Your task to perform on an android device: find which apps use the phone's location Image 0: 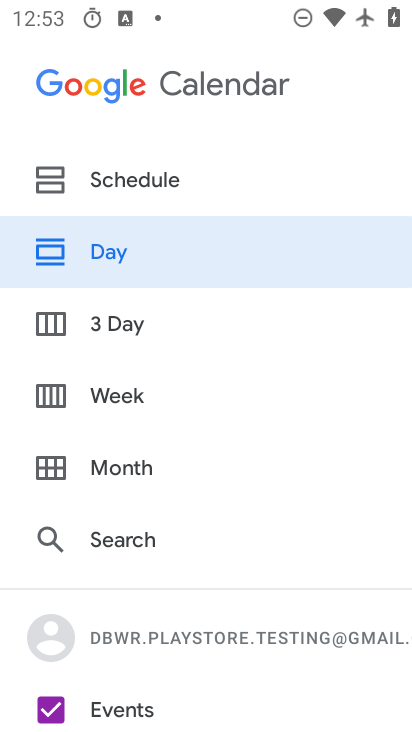
Step 0: press home button
Your task to perform on an android device: find which apps use the phone's location Image 1: 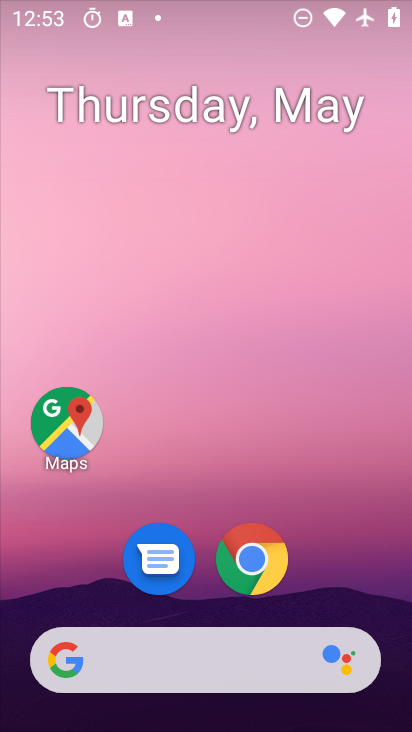
Step 1: drag from (307, 587) to (255, 138)
Your task to perform on an android device: find which apps use the phone's location Image 2: 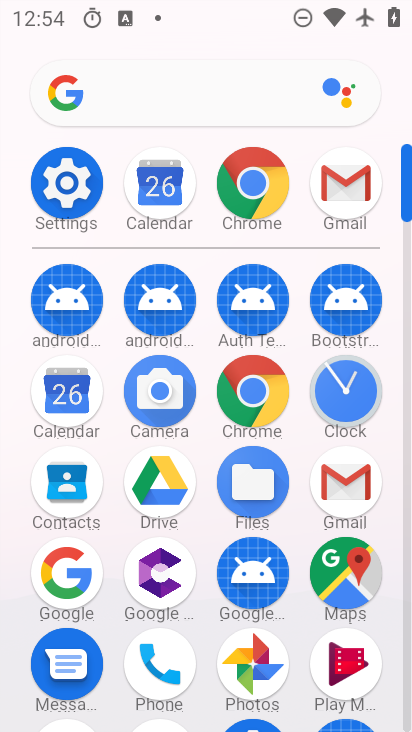
Step 2: click (60, 197)
Your task to perform on an android device: find which apps use the phone's location Image 3: 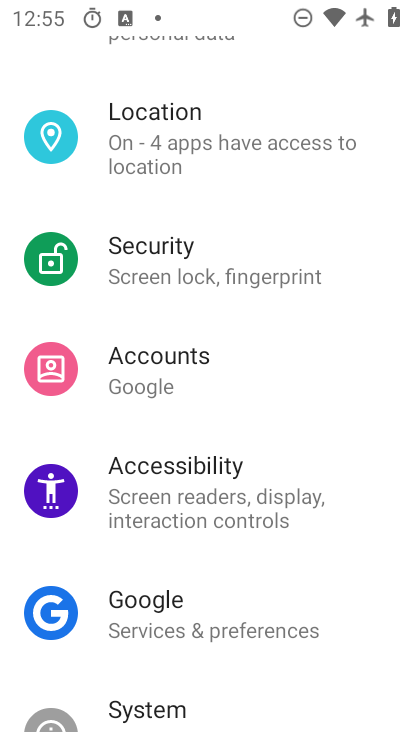
Step 3: drag from (217, 516) to (170, 693)
Your task to perform on an android device: find which apps use the phone's location Image 4: 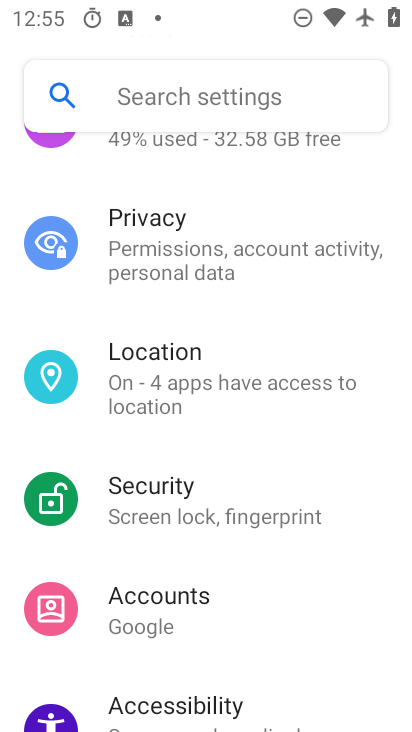
Step 4: click (231, 388)
Your task to perform on an android device: find which apps use the phone's location Image 5: 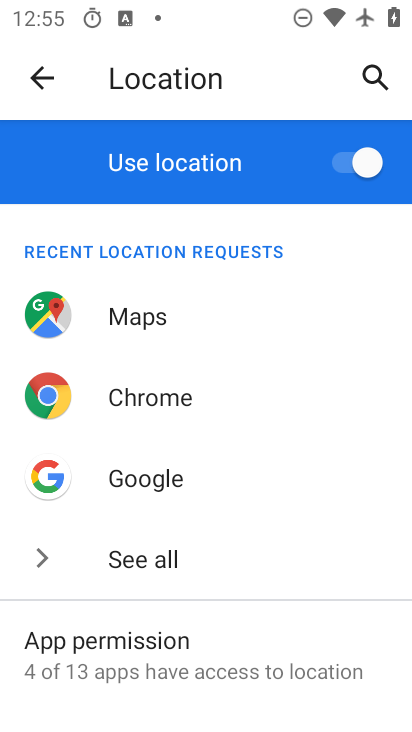
Step 5: click (141, 641)
Your task to perform on an android device: find which apps use the phone's location Image 6: 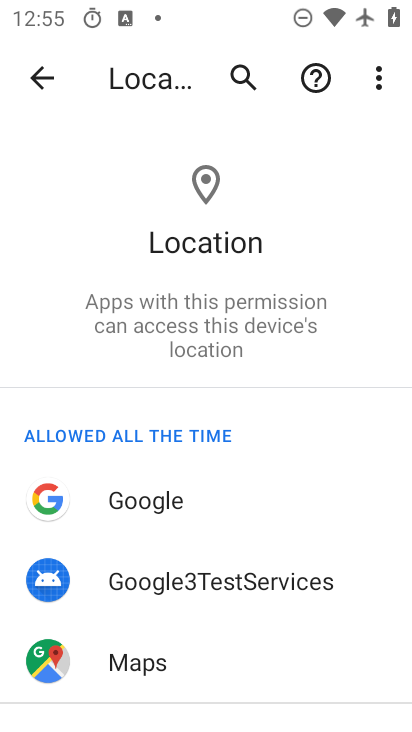
Step 6: task complete